Your task to perform on an android device: Toggle the flashlight Image 0: 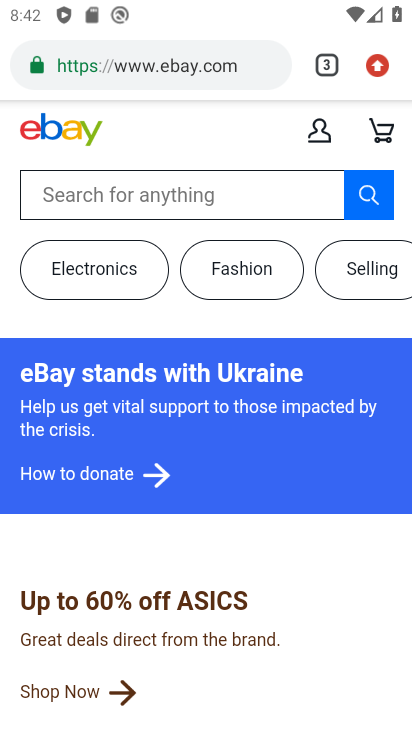
Step 0: press back button
Your task to perform on an android device: Toggle the flashlight Image 1: 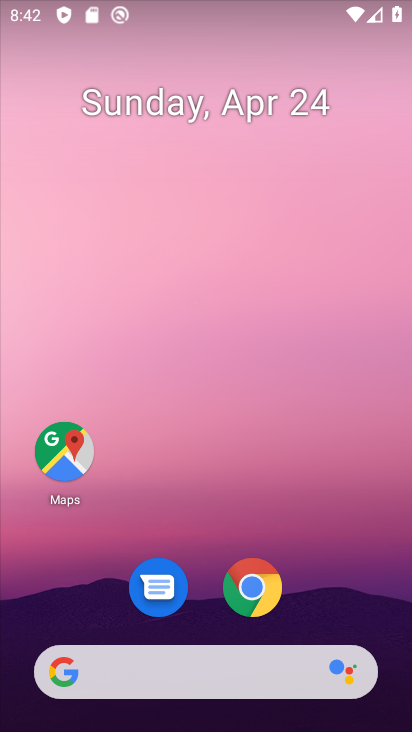
Step 1: drag from (190, 579) to (255, 120)
Your task to perform on an android device: Toggle the flashlight Image 2: 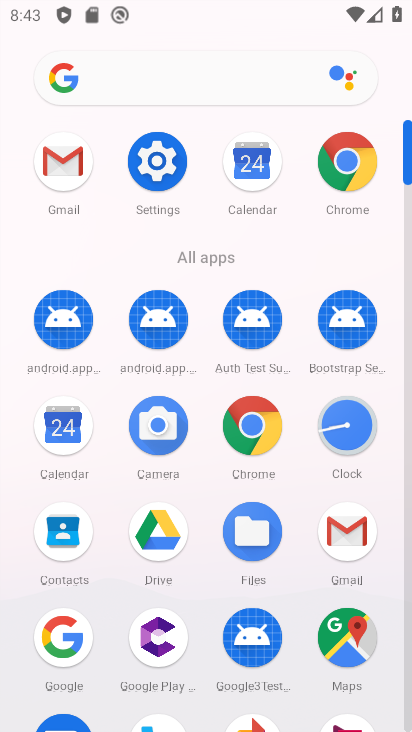
Step 2: click (138, 144)
Your task to perform on an android device: Toggle the flashlight Image 3: 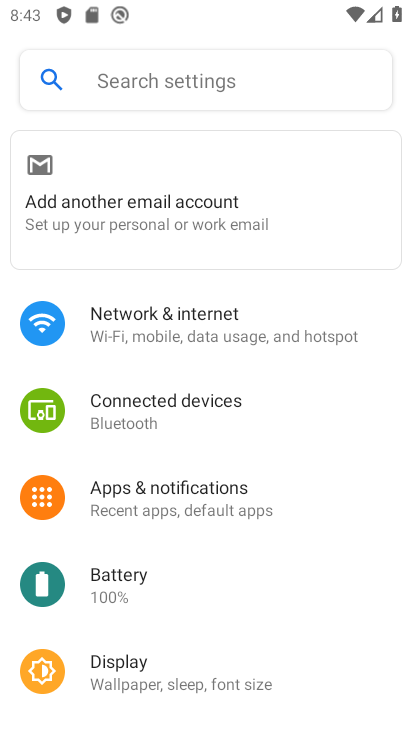
Step 3: click (156, 77)
Your task to perform on an android device: Toggle the flashlight Image 4: 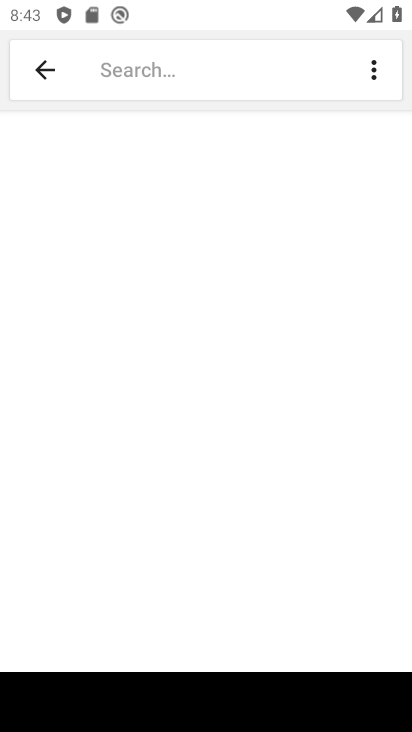
Step 4: type "flashlight"
Your task to perform on an android device: Toggle the flashlight Image 5: 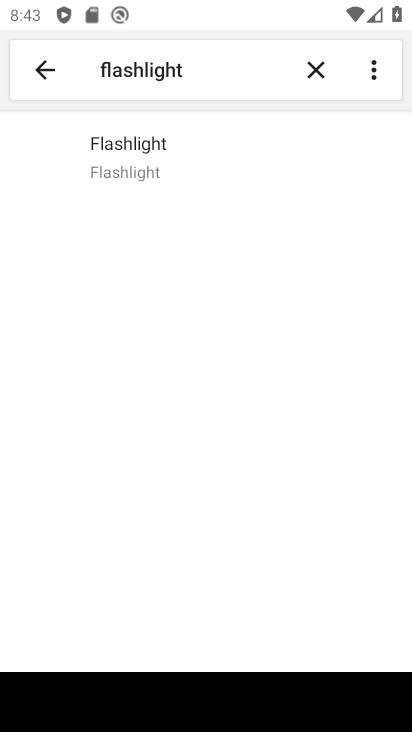
Step 5: click (155, 169)
Your task to perform on an android device: Toggle the flashlight Image 6: 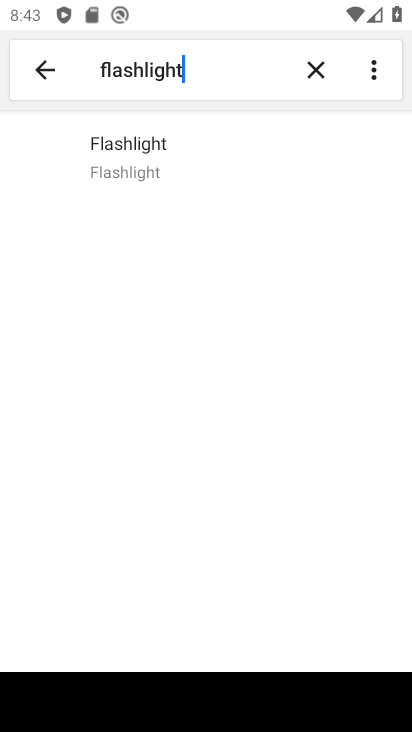
Step 6: task complete